Your task to perform on an android device: turn notification dots on Image 0: 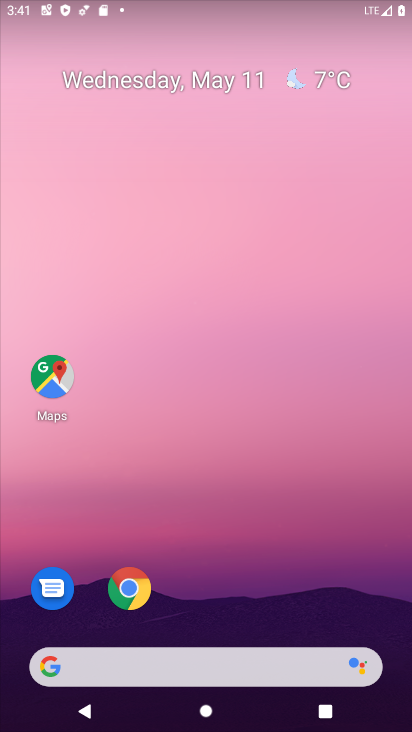
Step 0: drag from (216, 714) to (182, 272)
Your task to perform on an android device: turn notification dots on Image 1: 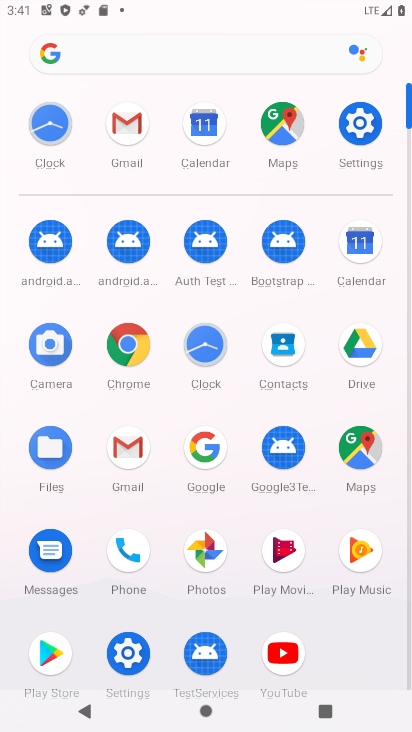
Step 1: click (359, 132)
Your task to perform on an android device: turn notification dots on Image 2: 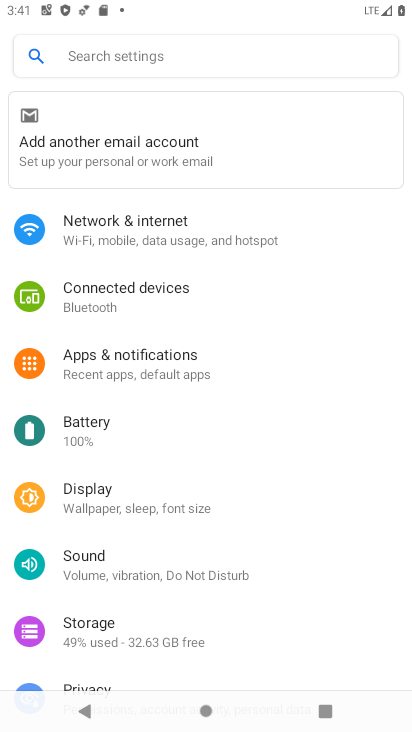
Step 2: click (156, 365)
Your task to perform on an android device: turn notification dots on Image 3: 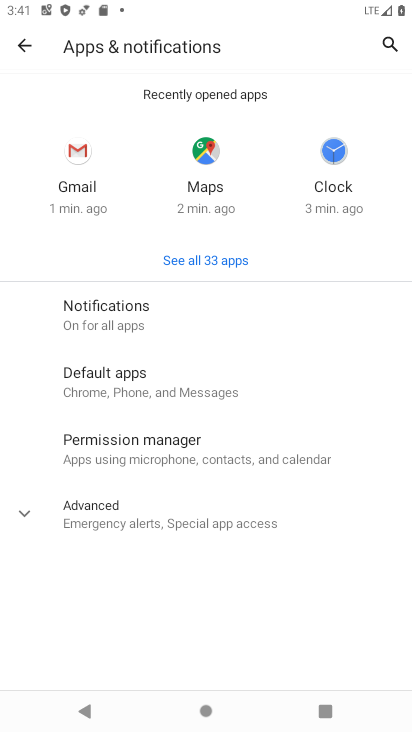
Step 3: click (106, 312)
Your task to perform on an android device: turn notification dots on Image 4: 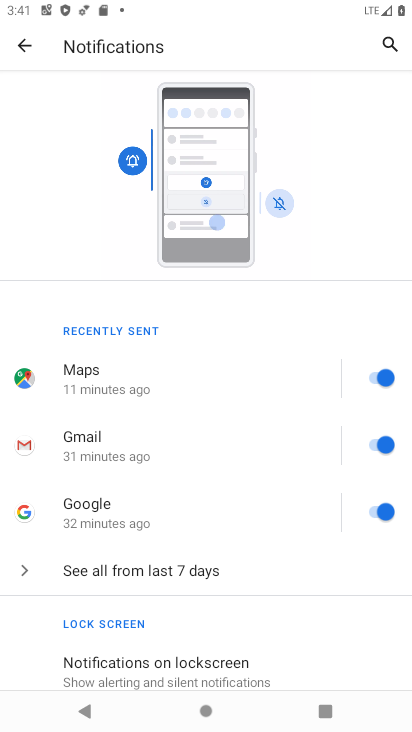
Step 4: drag from (179, 655) to (166, 364)
Your task to perform on an android device: turn notification dots on Image 5: 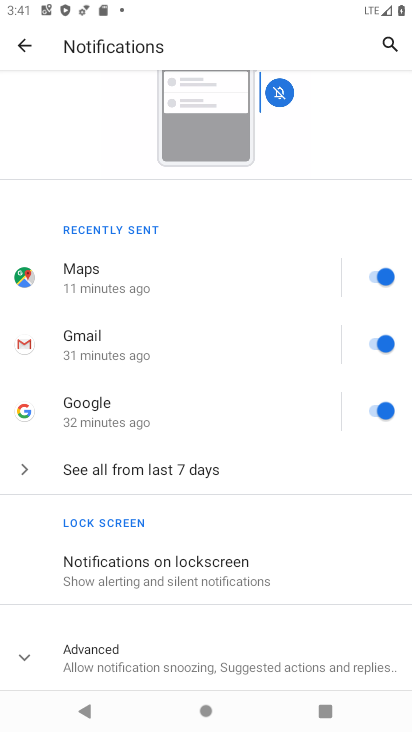
Step 5: click (101, 652)
Your task to perform on an android device: turn notification dots on Image 6: 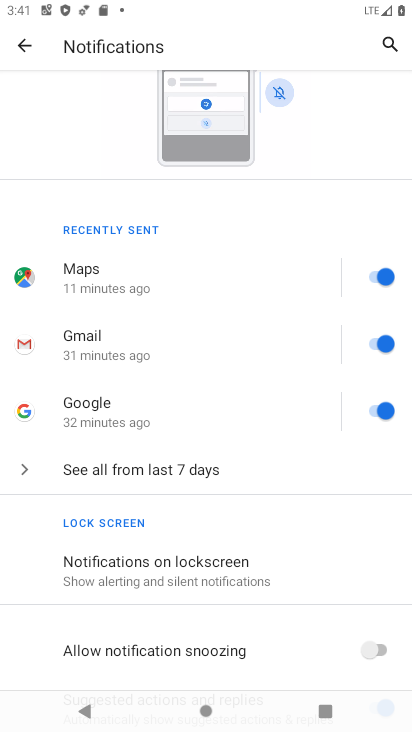
Step 6: drag from (164, 672) to (177, 424)
Your task to perform on an android device: turn notification dots on Image 7: 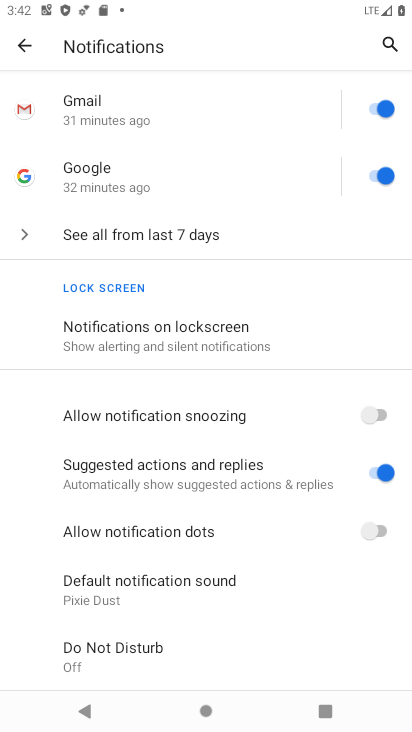
Step 7: click (377, 528)
Your task to perform on an android device: turn notification dots on Image 8: 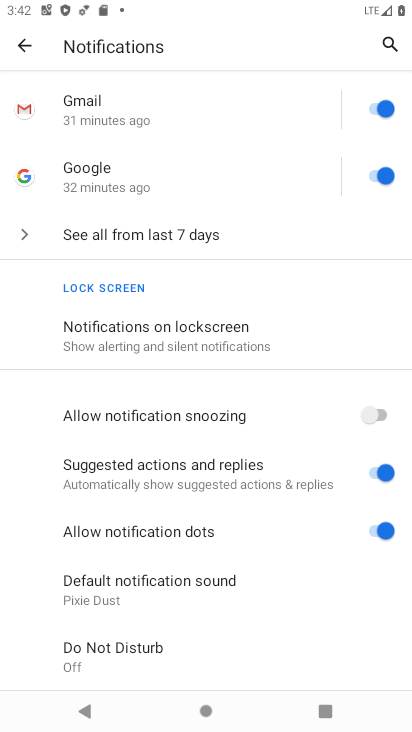
Step 8: task complete